Your task to perform on an android device: change the upload size in google photos Image 0: 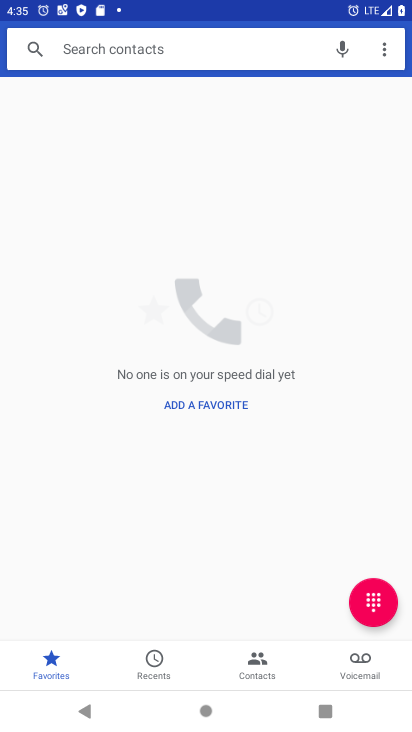
Step 0: press home button
Your task to perform on an android device: change the upload size in google photos Image 1: 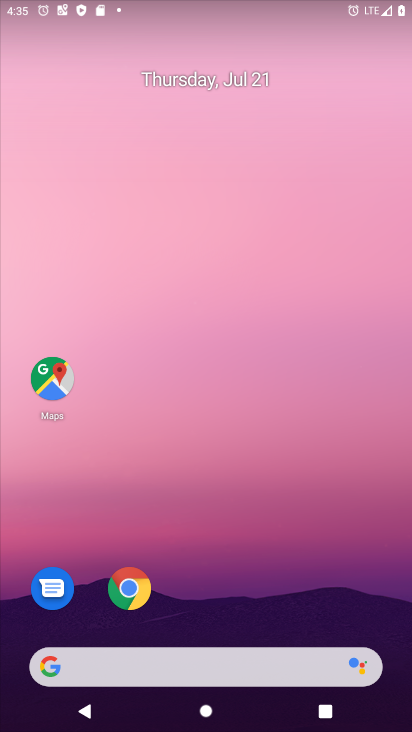
Step 1: drag from (198, 585) to (278, 65)
Your task to perform on an android device: change the upload size in google photos Image 2: 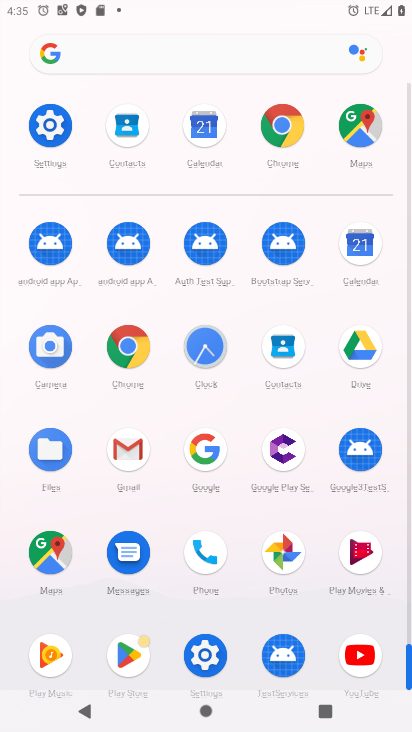
Step 2: click (284, 539)
Your task to perform on an android device: change the upload size in google photos Image 3: 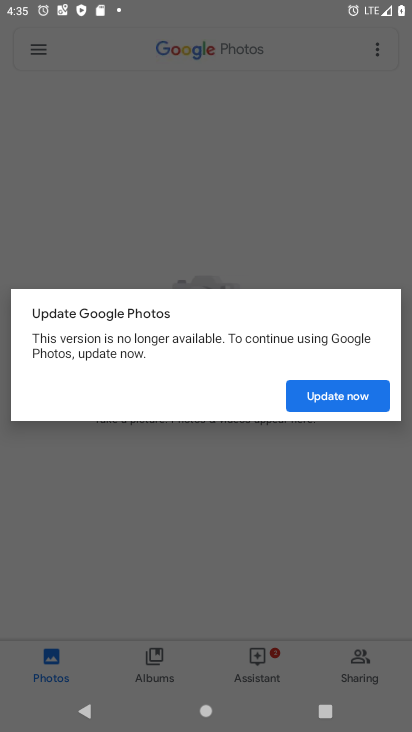
Step 3: click (349, 386)
Your task to perform on an android device: change the upload size in google photos Image 4: 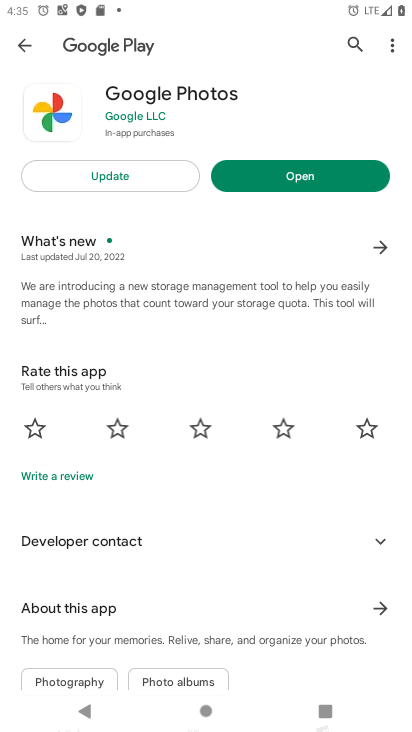
Step 4: click (179, 176)
Your task to perform on an android device: change the upload size in google photos Image 5: 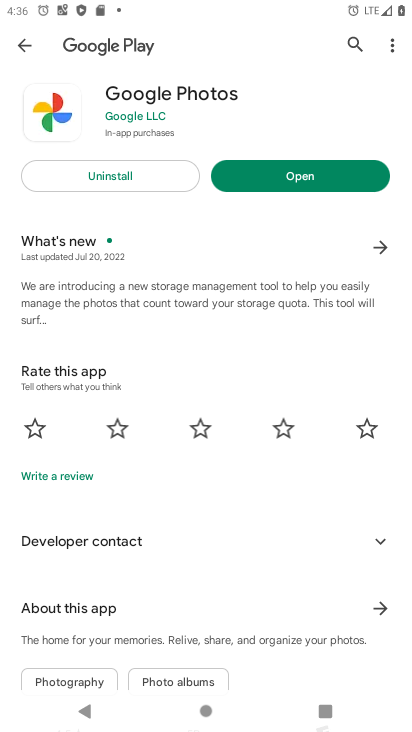
Step 5: click (331, 174)
Your task to perform on an android device: change the upload size in google photos Image 6: 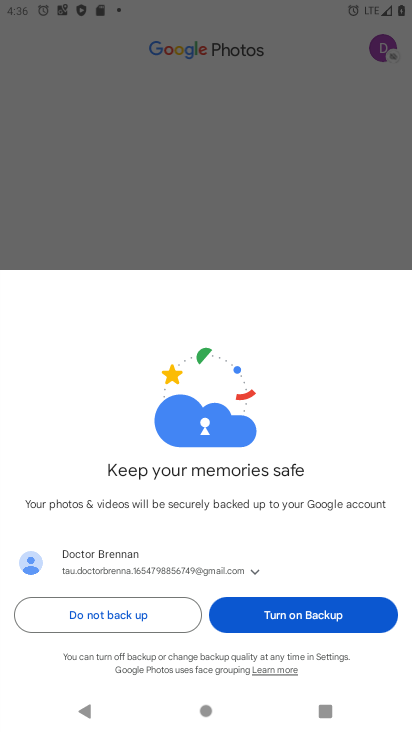
Step 6: click (332, 612)
Your task to perform on an android device: change the upload size in google photos Image 7: 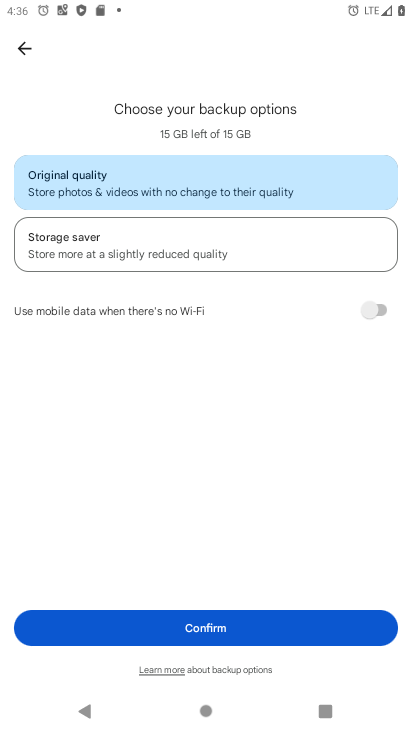
Step 7: click (181, 615)
Your task to perform on an android device: change the upload size in google photos Image 8: 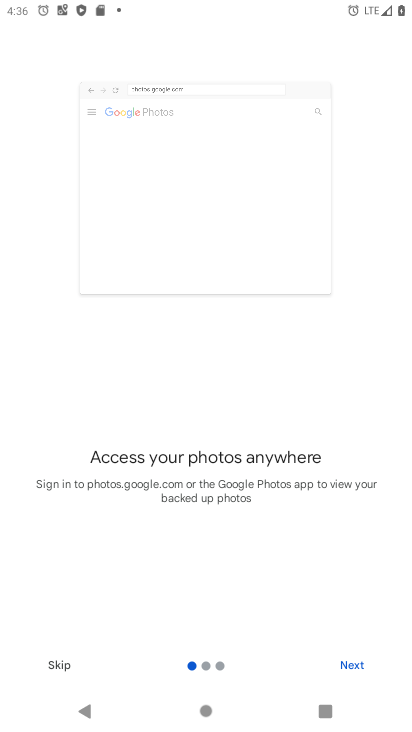
Step 8: click (351, 669)
Your task to perform on an android device: change the upload size in google photos Image 9: 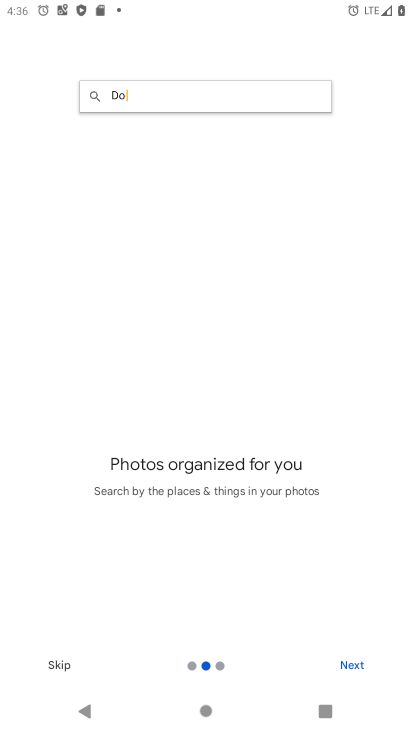
Step 9: click (351, 669)
Your task to perform on an android device: change the upload size in google photos Image 10: 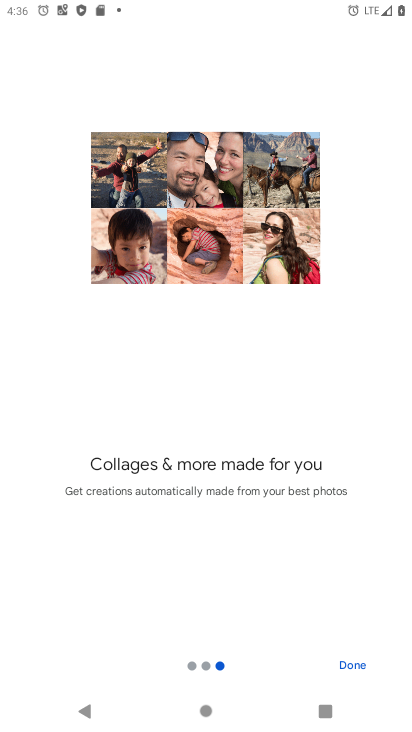
Step 10: click (351, 669)
Your task to perform on an android device: change the upload size in google photos Image 11: 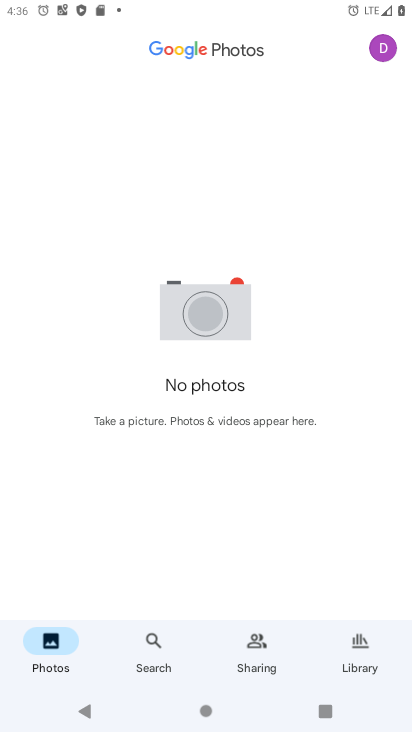
Step 11: click (392, 42)
Your task to perform on an android device: change the upload size in google photos Image 12: 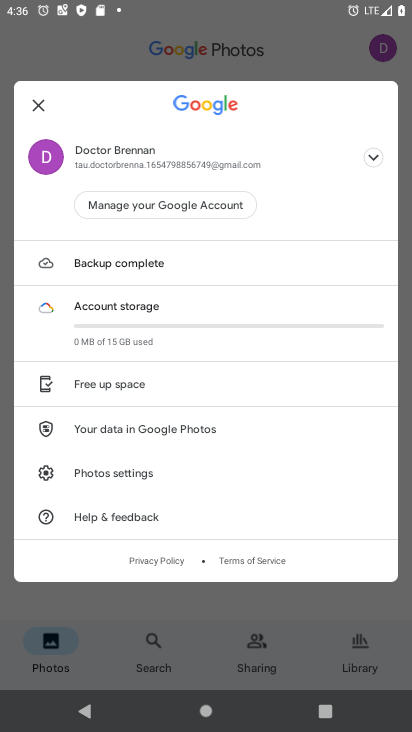
Step 12: click (113, 476)
Your task to perform on an android device: change the upload size in google photos Image 13: 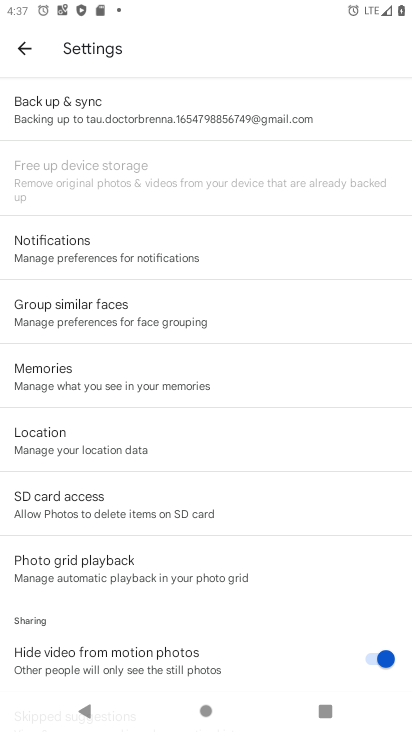
Step 13: click (123, 113)
Your task to perform on an android device: change the upload size in google photos Image 14: 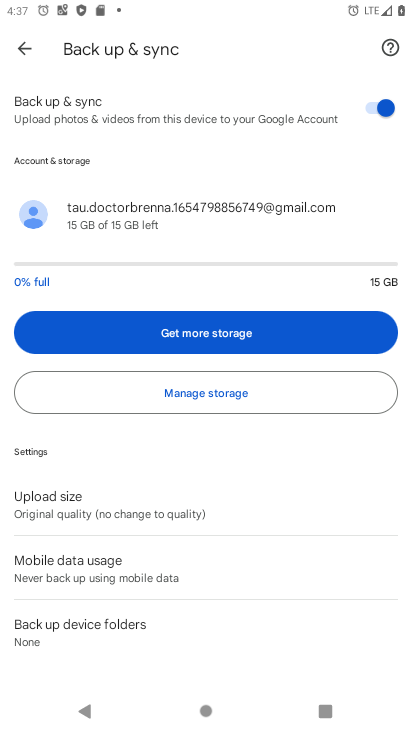
Step 14: click (72, 498)
Your task to perform on an android device: change the upload size in google photos Image 15: 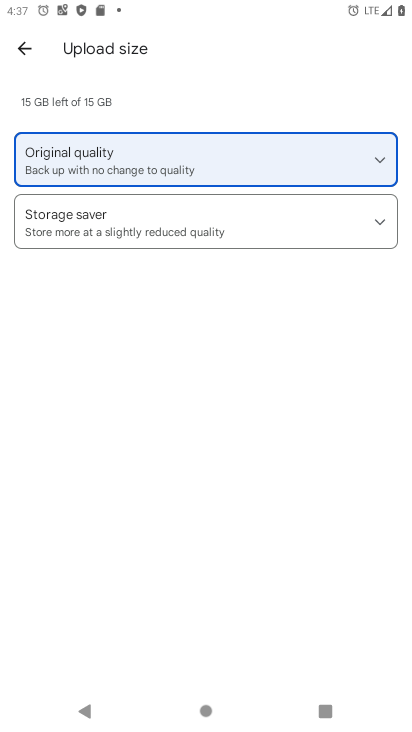
Step 15: click (107, 238)
Your task to perform on an android device: change the upload size in google photos Image 16: 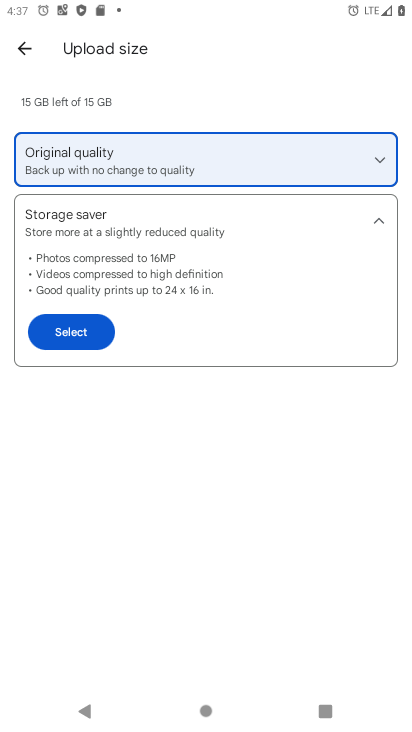
Step 16: click (37, 340)
Your task to perform on an android device: change the upload size in google photos Image 17: 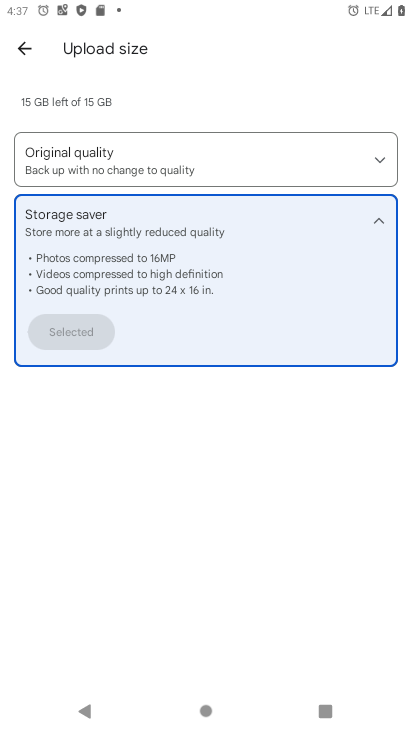
Step 17: task complete